Your task to perform on an android device: Empty the shopping cart on ebay. Image 0: 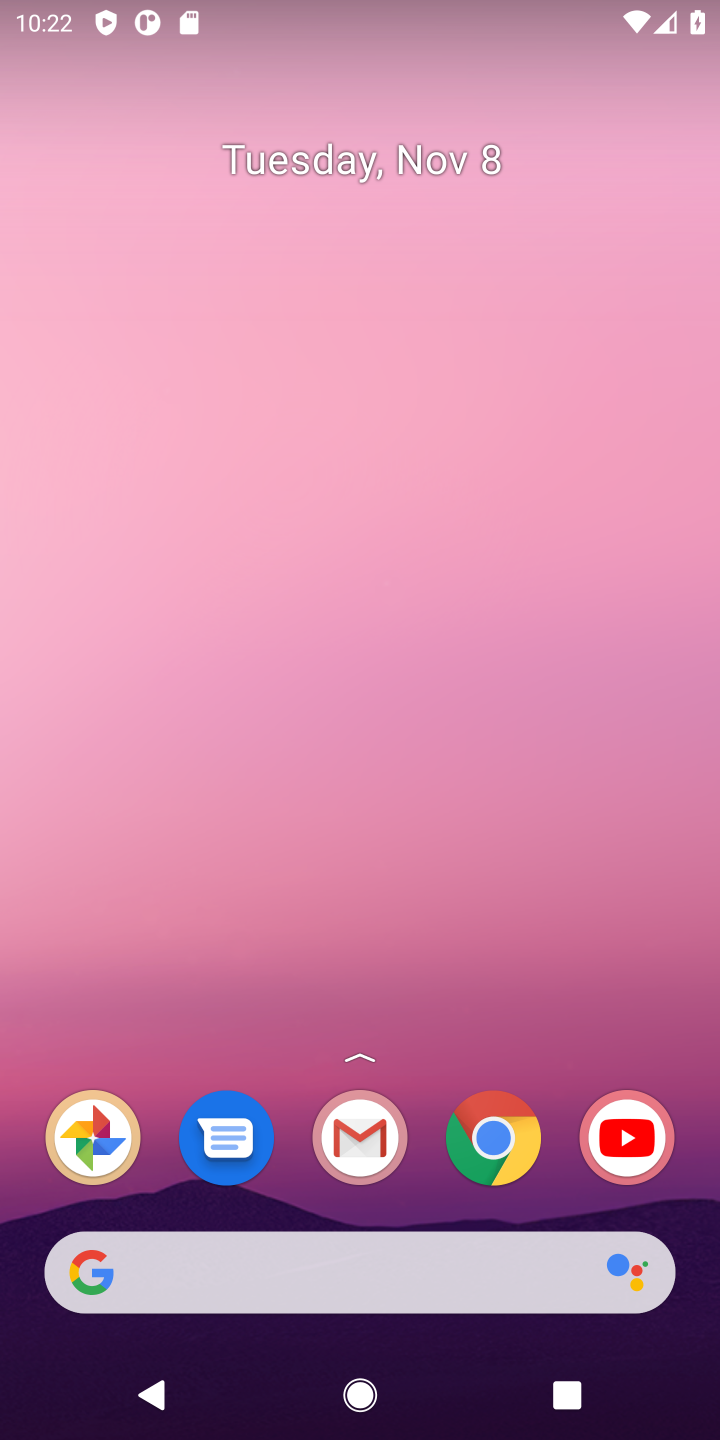
Step 0: click (487, 1134)
Your task to perform on an android device: Empty the shopping cart on ebay. Image 1: 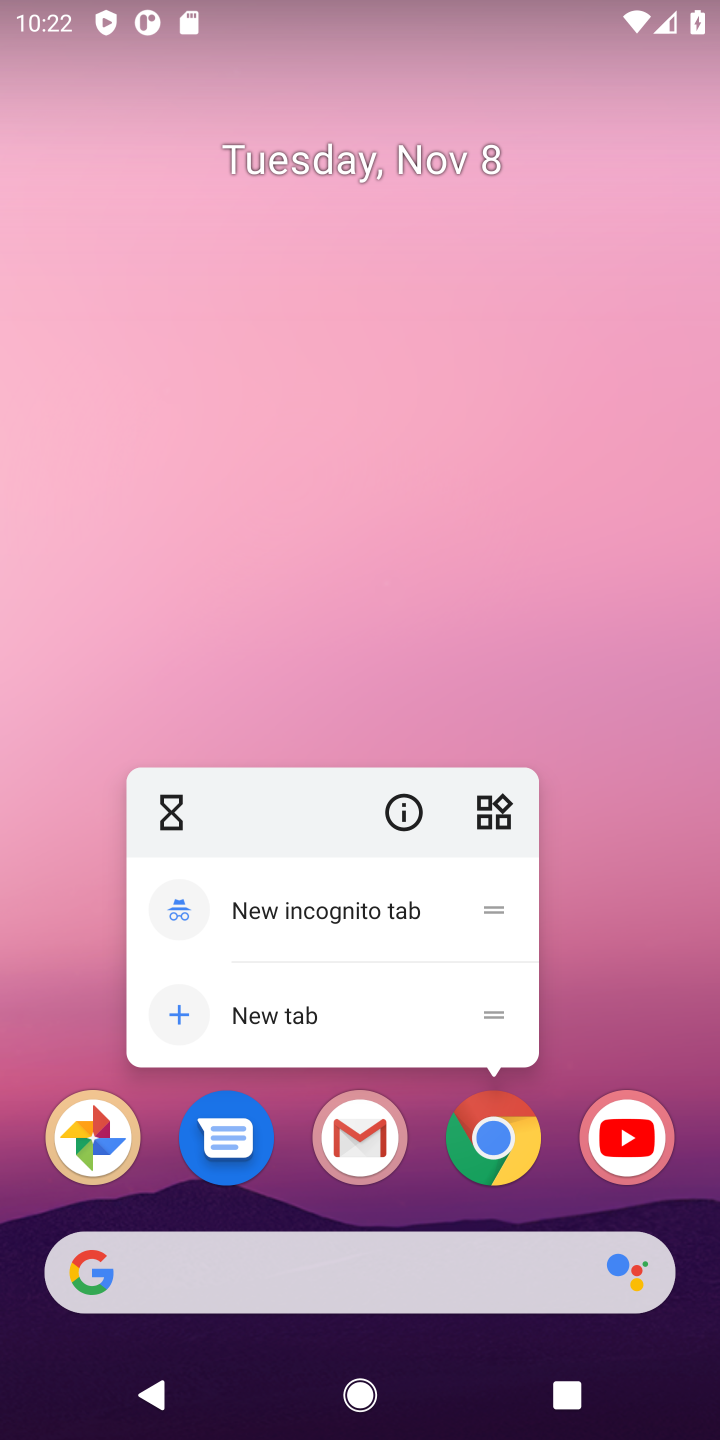
Step 1: click (493, 1136)
Your task to perform on an android device: Empty the shopping cart on ebay. Image 2: 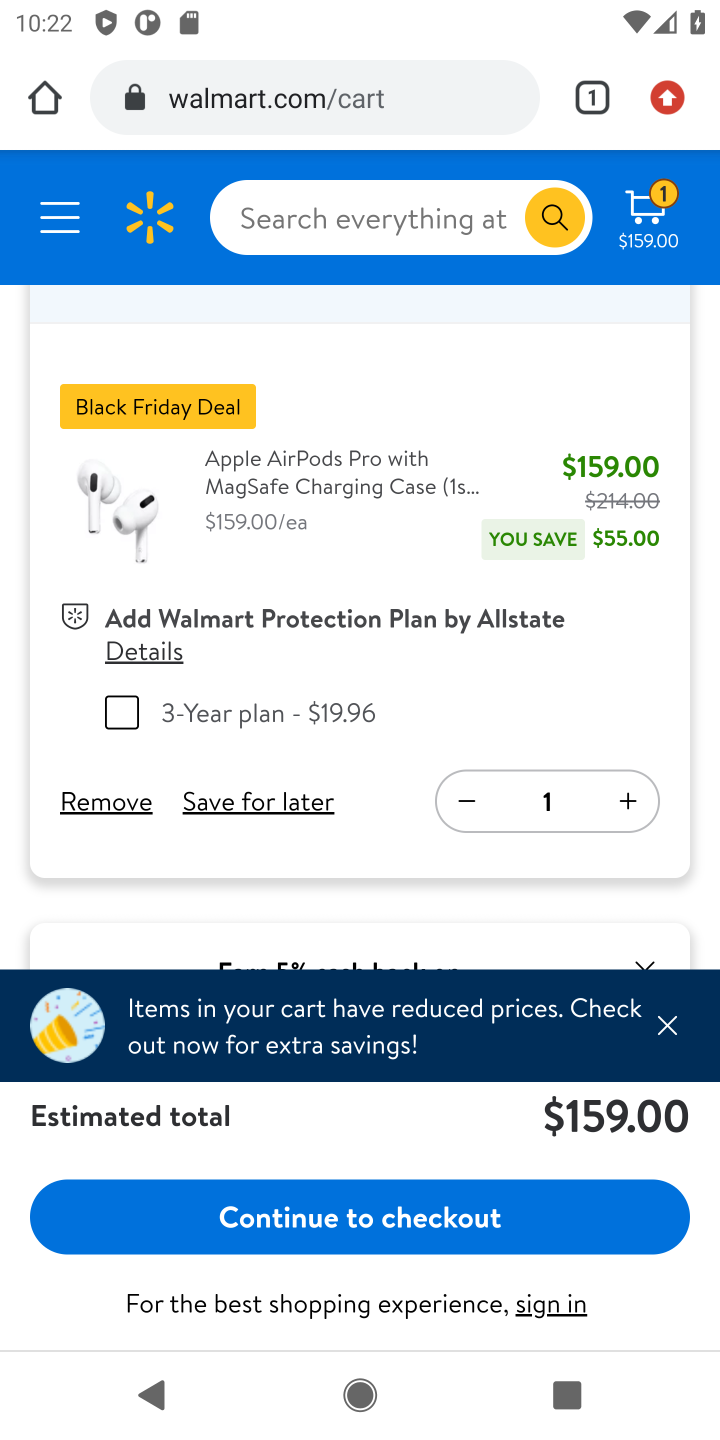
Step 2: click (329, 81)
Your task to perform on an android device: Empty the shopping cart on ebay. Image 3: 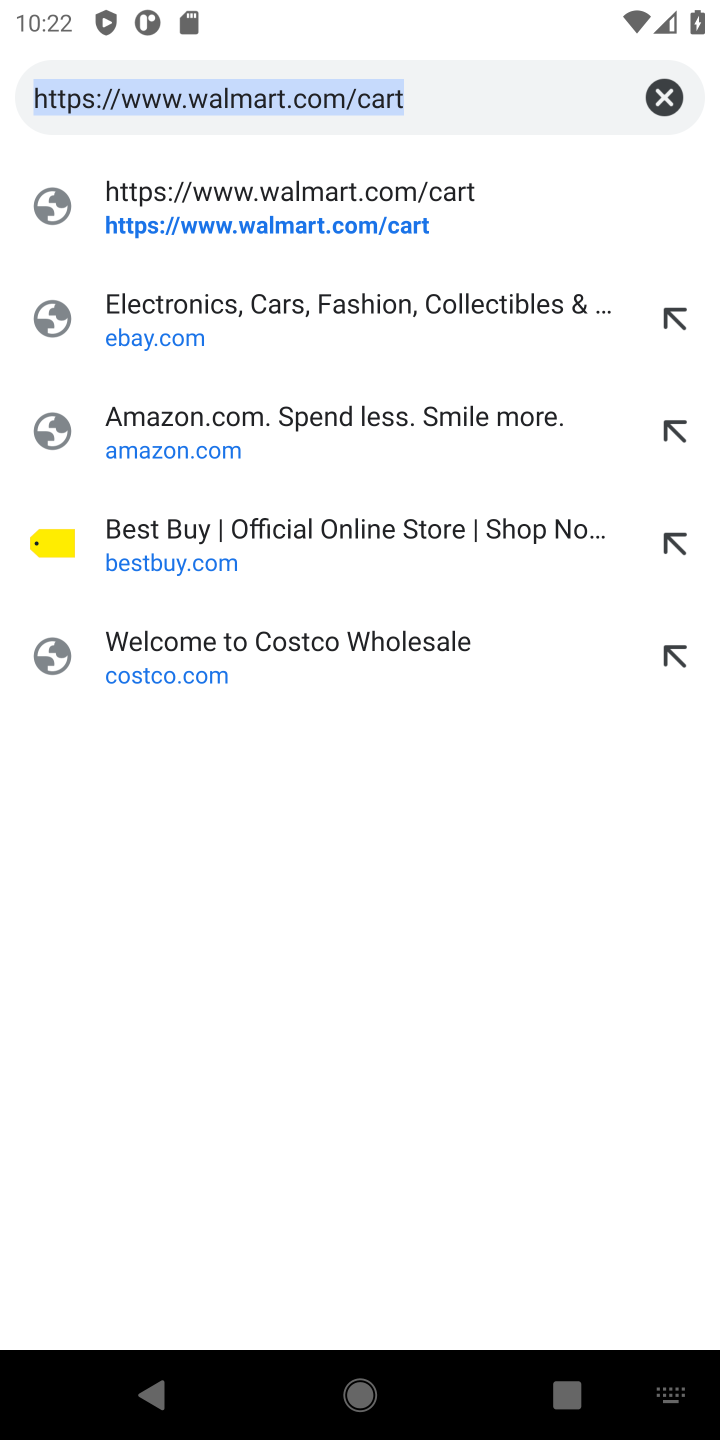
Step 3: click (664, 94)
Your task to perform on an android device: Empty the shopping cart on ebay. Image 4: 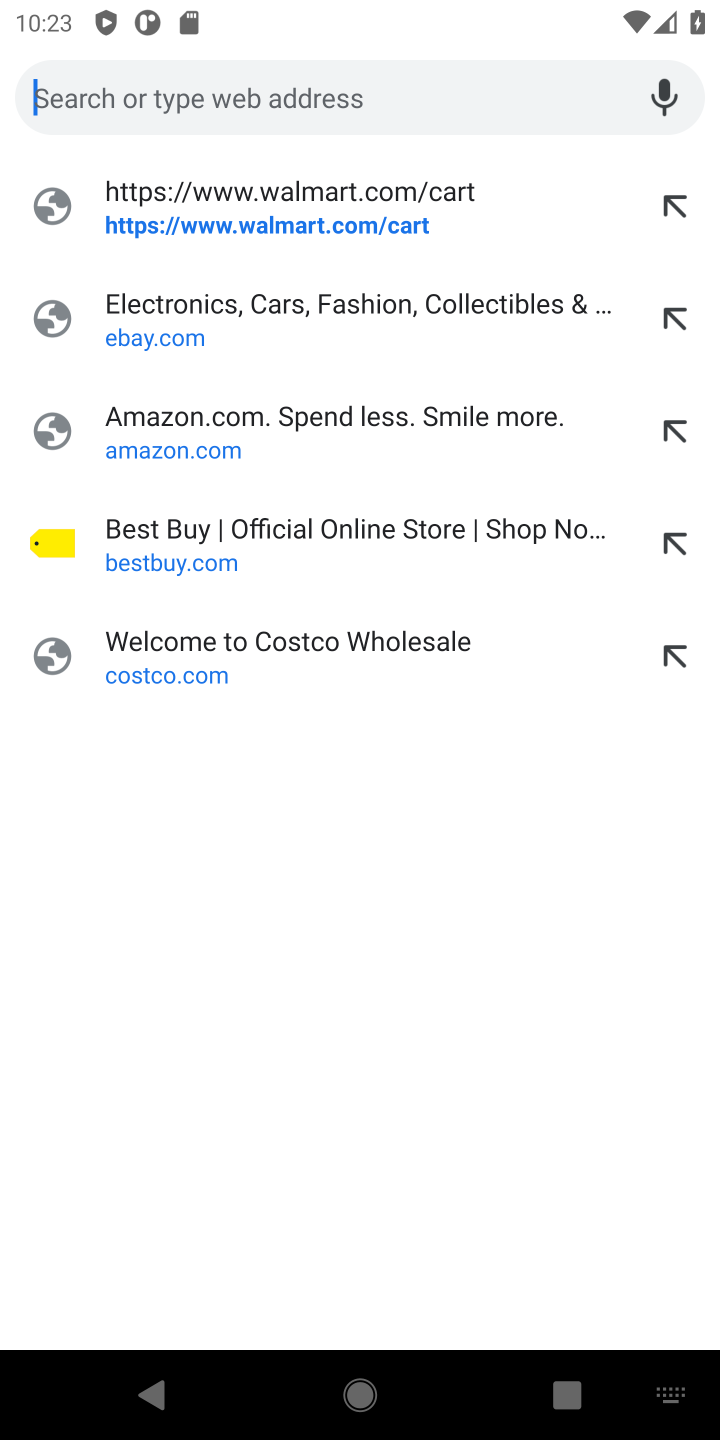
Step 4: click (265, 82)
Your task to perform on an android device: Empty the shopping cart on ebay. Image 5: 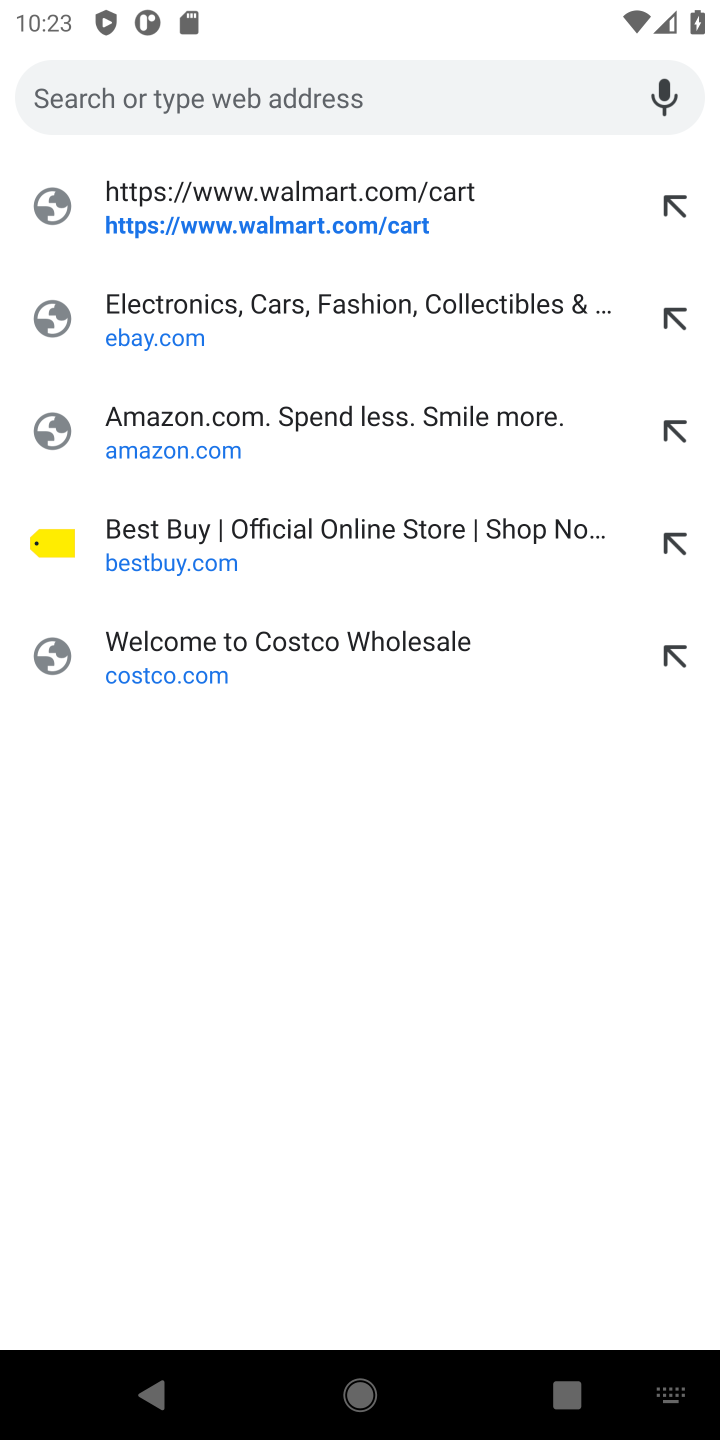
Step 5: click (134, 329)
Your task to perform on an android device: Empty the shopping cart on ebay. Image 6: 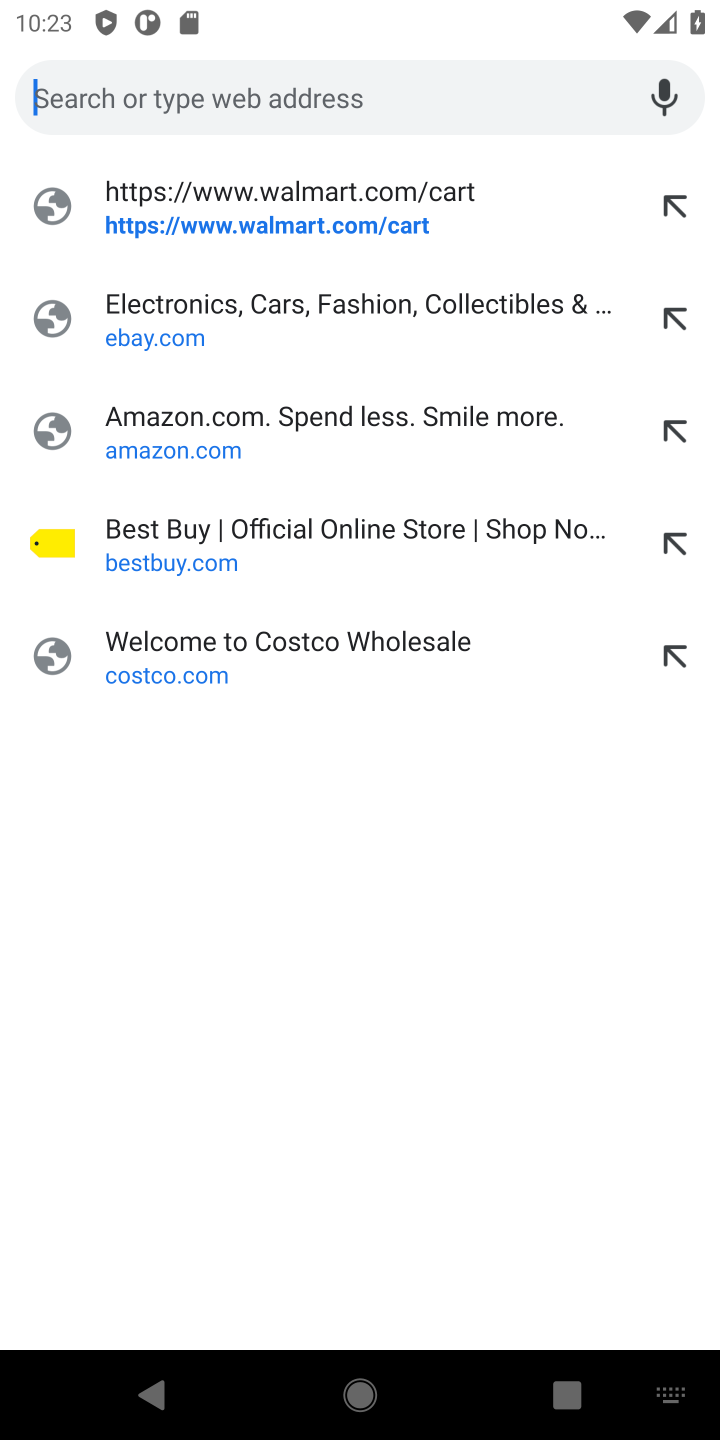
Step 6: click (134, 330)
Your task to perform on an android device: Empty the shopping cart on ebay. Image 7: 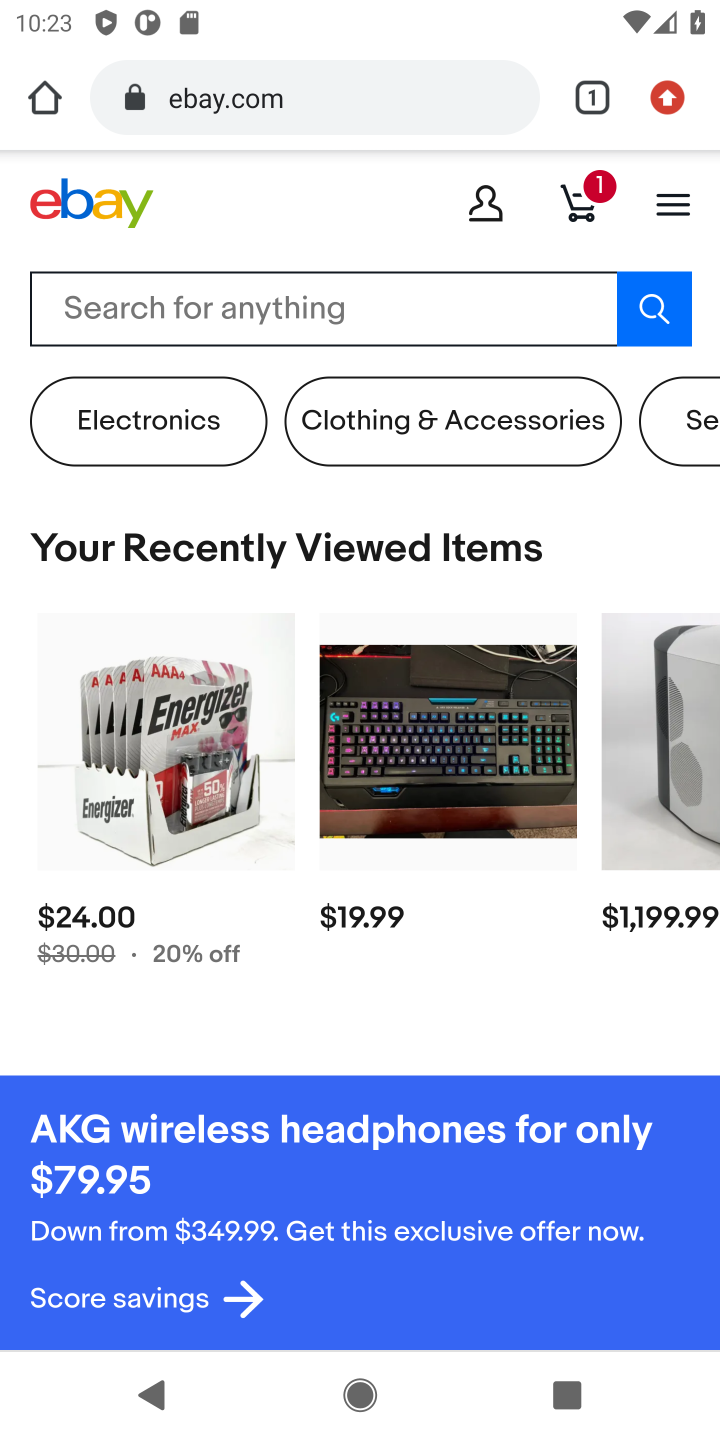
Step 7: click (574, 182)
Your task to perform on an android device: Empty the shopping cart on ebay. Image 8: 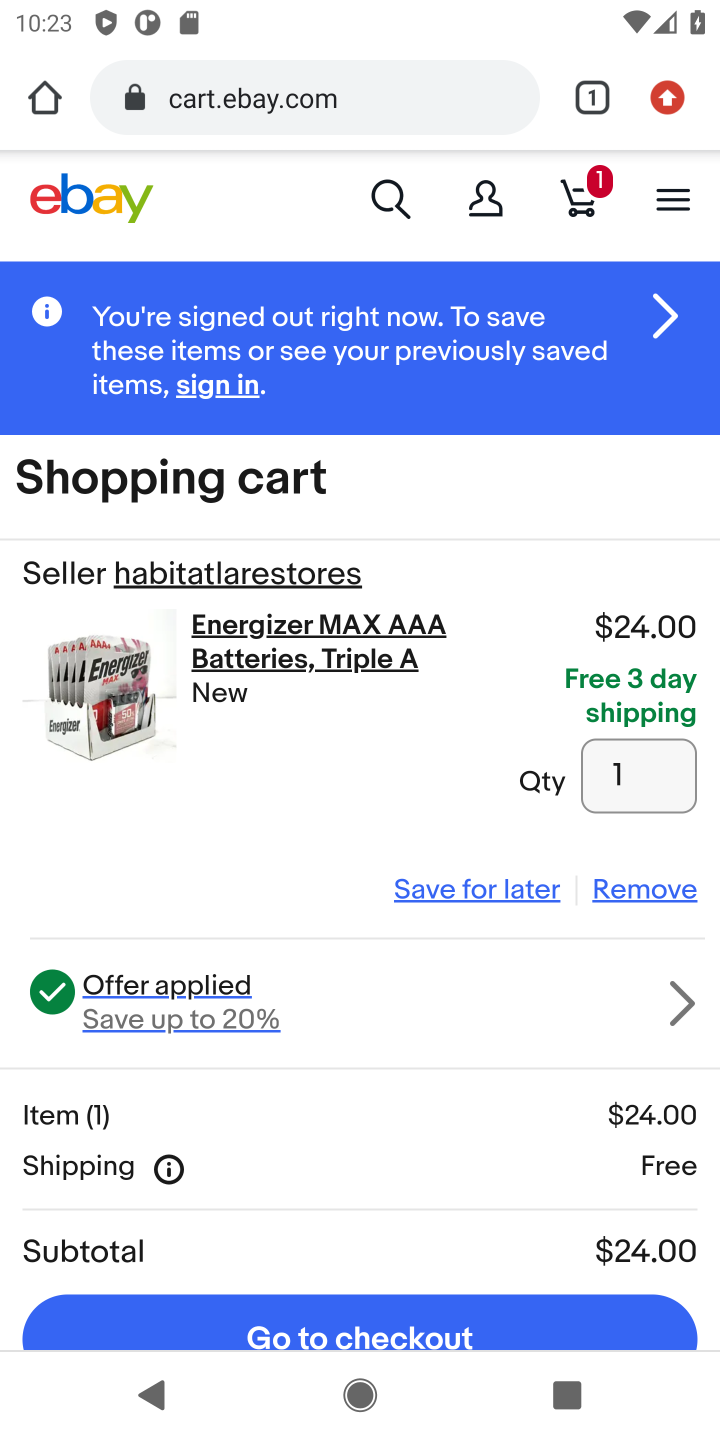
Step 8: click (651, 884)
Your task to perform on an android device: Empty the shopping cart on ebay. Image 9: 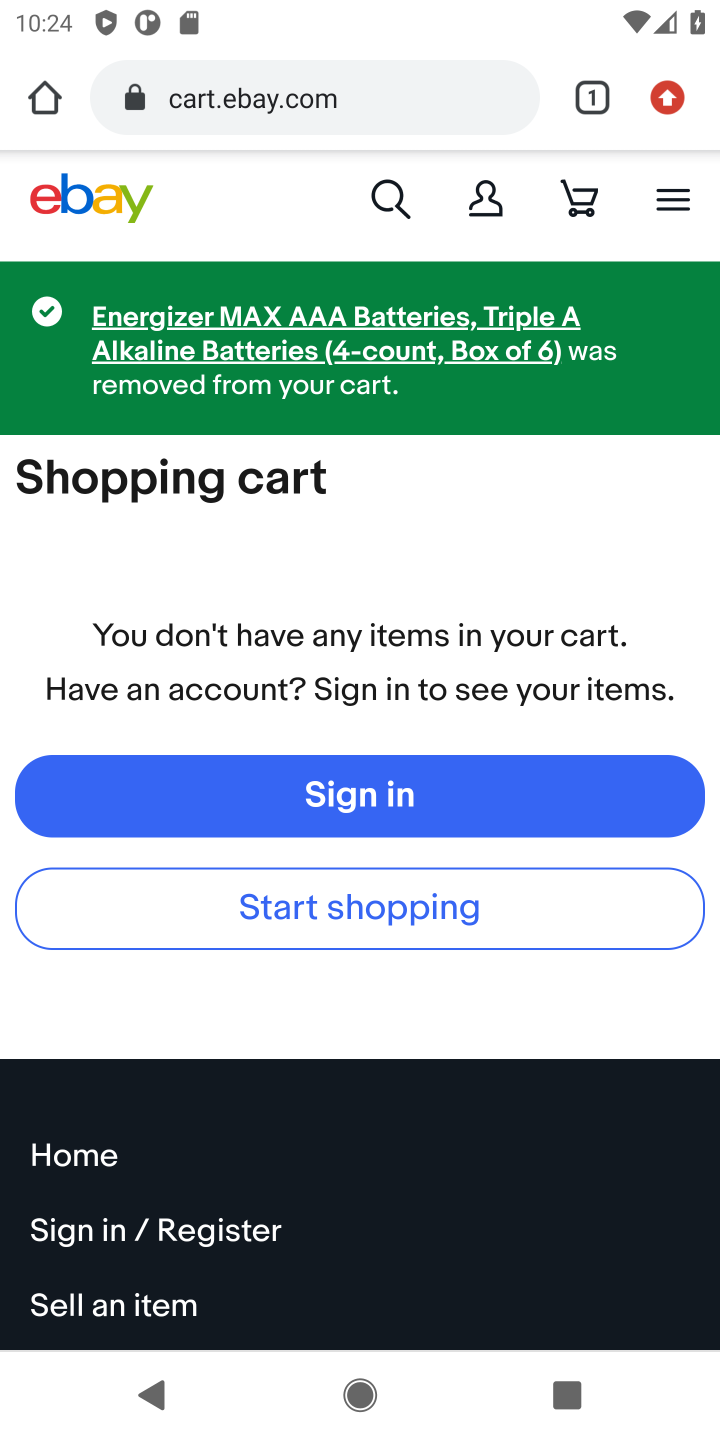
Step 9: task complete